Your task to perform on an android device: Open the web browser Image 0: 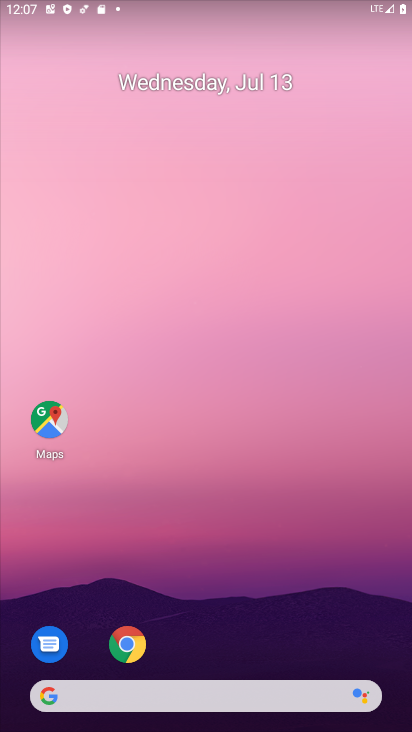
Step 0: drag from (197, 642) to (213, 195)
Your task to perform on an android device: Open the web browser Image 1: 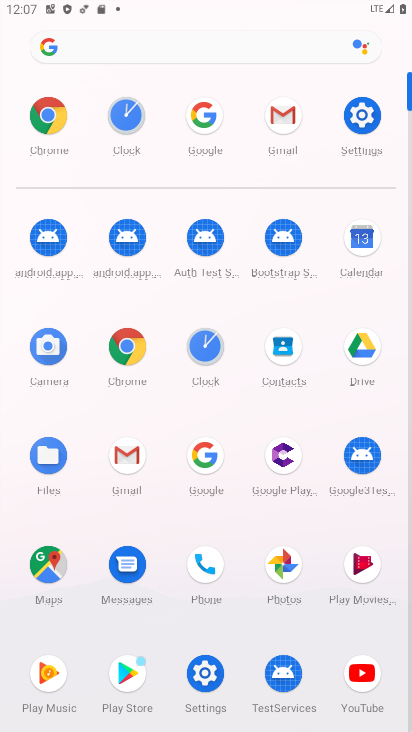
Step 1: click (200, 109)
Your task to perform on an android device: Open the web browser Image 2: 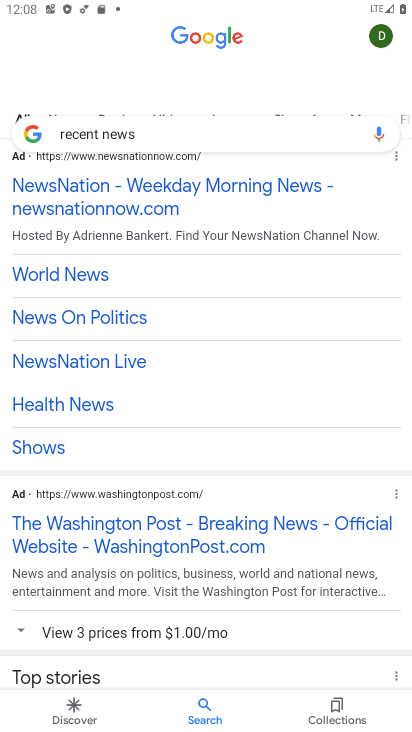
Step 2: task complete